Your task to perform on an android device: Open the calendar app, open the side menu, and click the "Day" option Image 0: 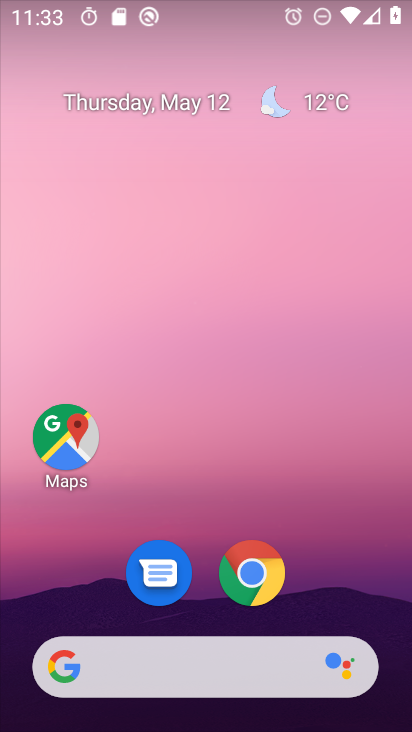
Step 0: drag from (399, 678) to (389, 245)
Your task to perform on an android device: Open the calendar app, open the side menu, and click the "Day" option Image 1: 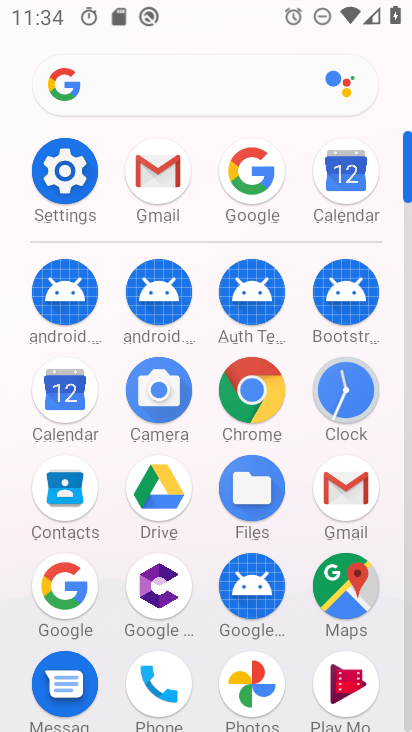
Step 1: click (50, 383)
Your task to perform on an android device: Open the calendar app, open the side menu, and click the "Day" option Image 2: 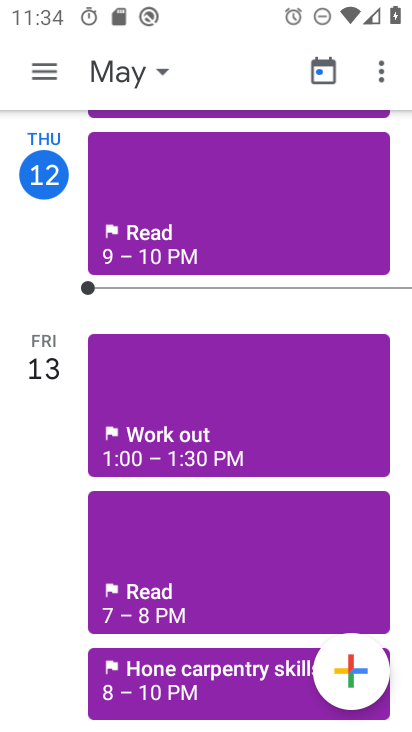
Step 2: click (33, 72)
Your task to perform on an android device: Open the calendar app, open the side menu, and click the "Day" option Image 3: 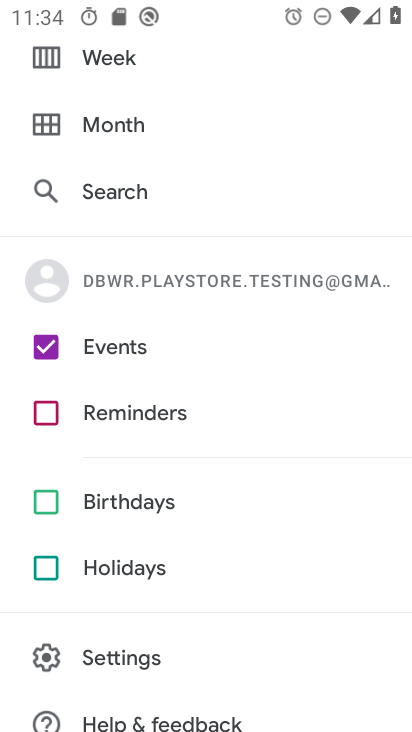
Step 3: drag from (205, 120) to (208, 536)
Your task to perform on an android device: Open the calendar app, open the side menu, and click the "Day" option Image 4: 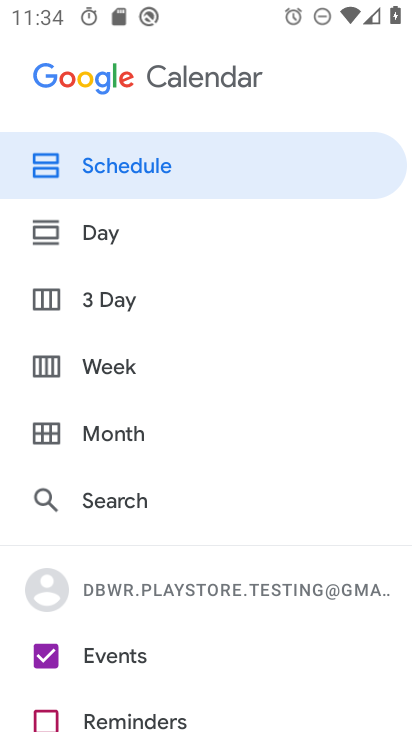
Step 4: click (102, 225)
Your task to perform on an android device: Open the calendar app, open the side menu, and click the "Day" option Image 5: 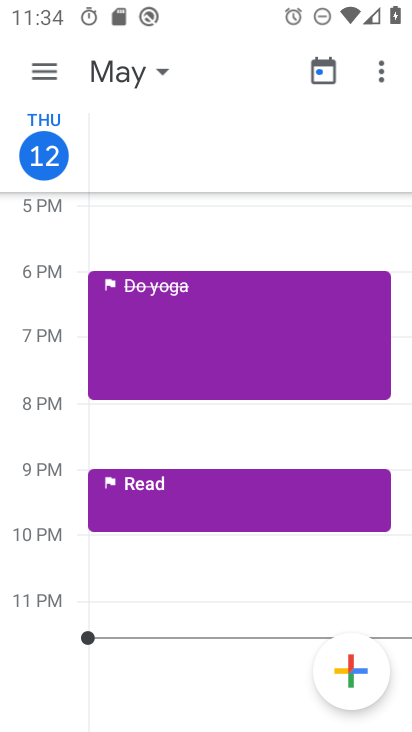
Step 5: task complete